Your task to perform on an android device: What is the recent news? Image 0: 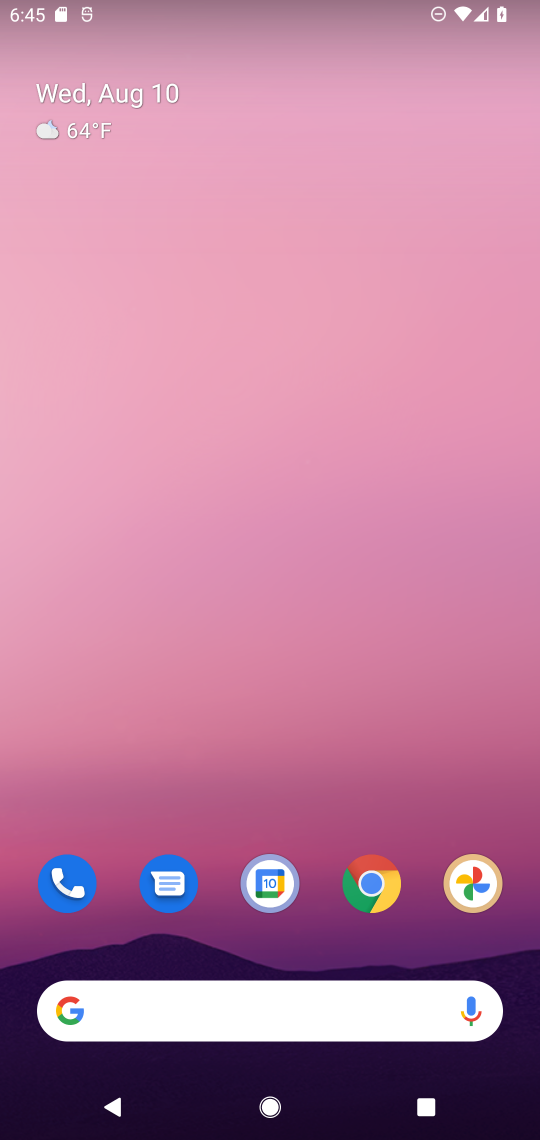
Step 0: click (386, 866)
Your task to perform on an android device: What is the recent news? Image 1: 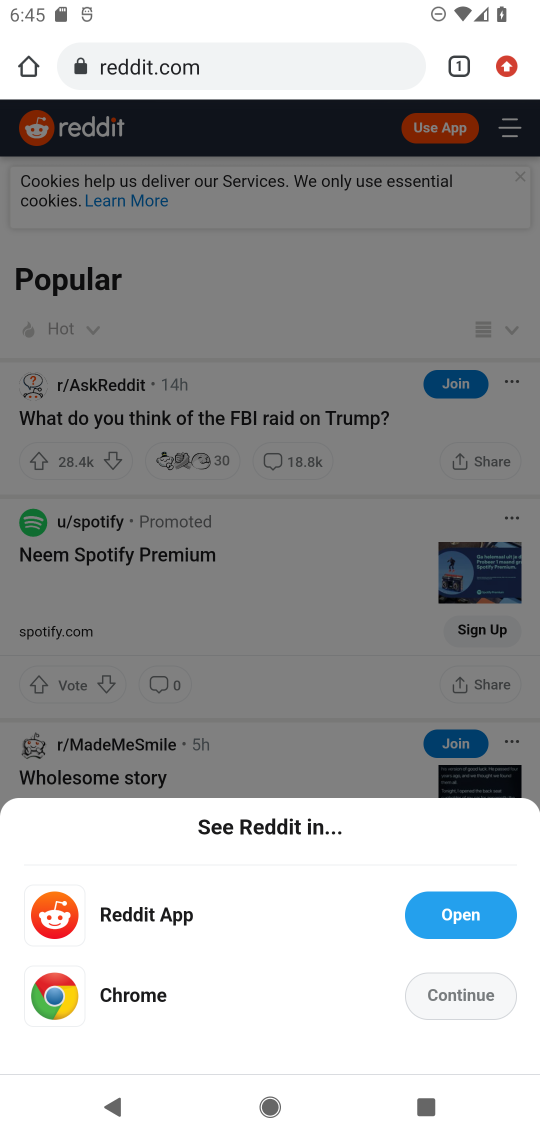
Step 1: click (253, 55)
Your task to perform on an android device: What is the recent news? Image 2: 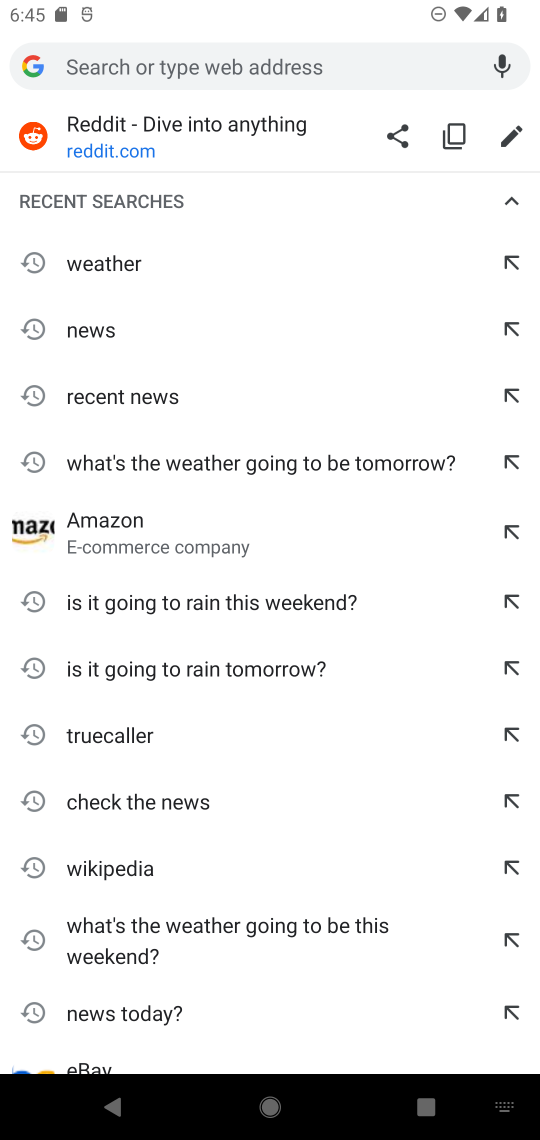
Step 2: type "What is the recent news?"
Your task to perform on an android device: What is the recent news? Image 3: 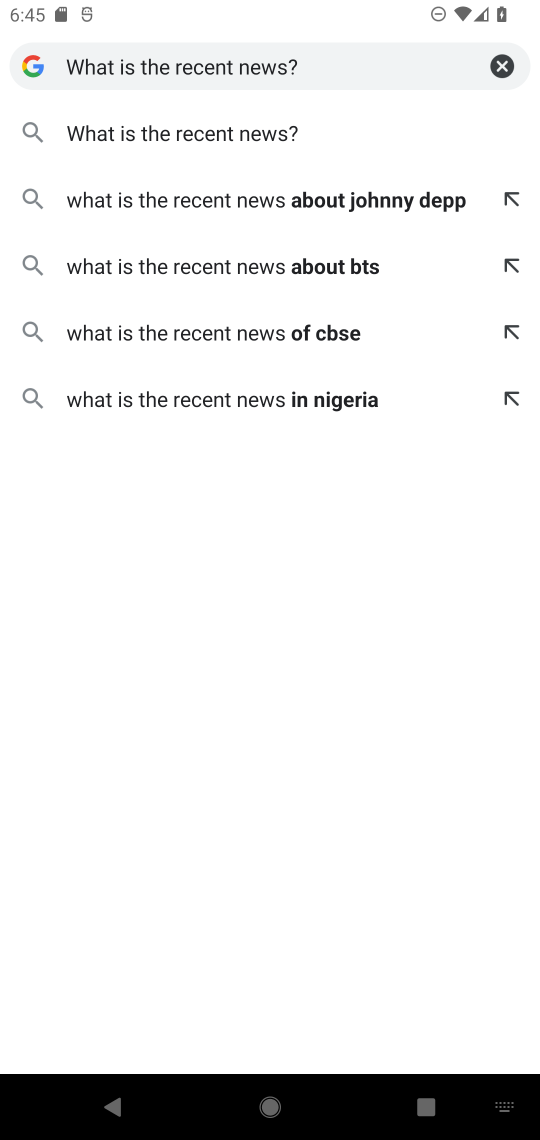
Step 3: click (257, 58)
Your task to perform on an android device: What is the recent news? Image 4: 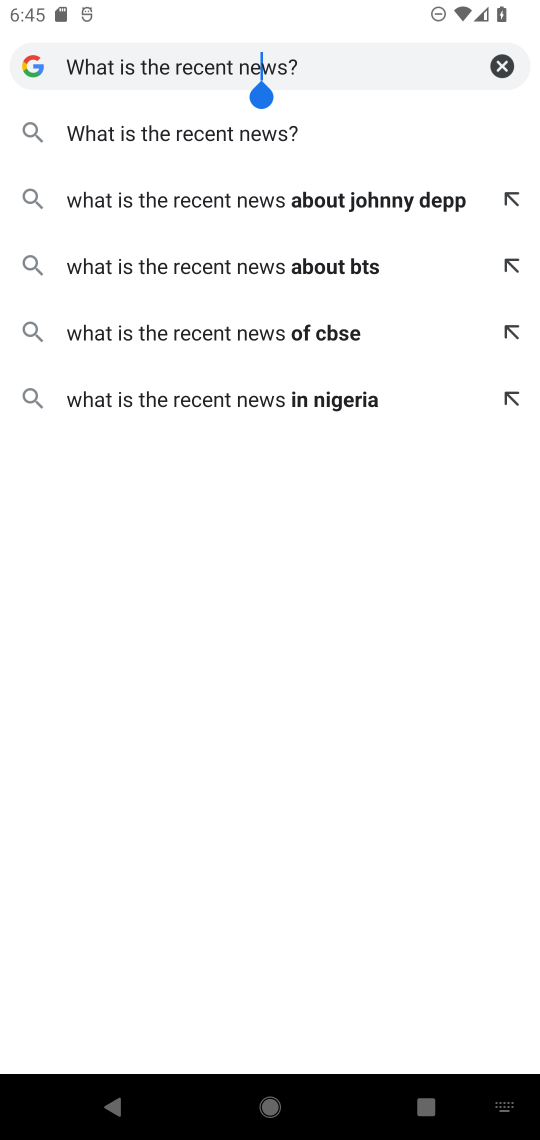
Step 4: click (241, 141)
Your task to perform on an android device: What is the recent news? Image 5: 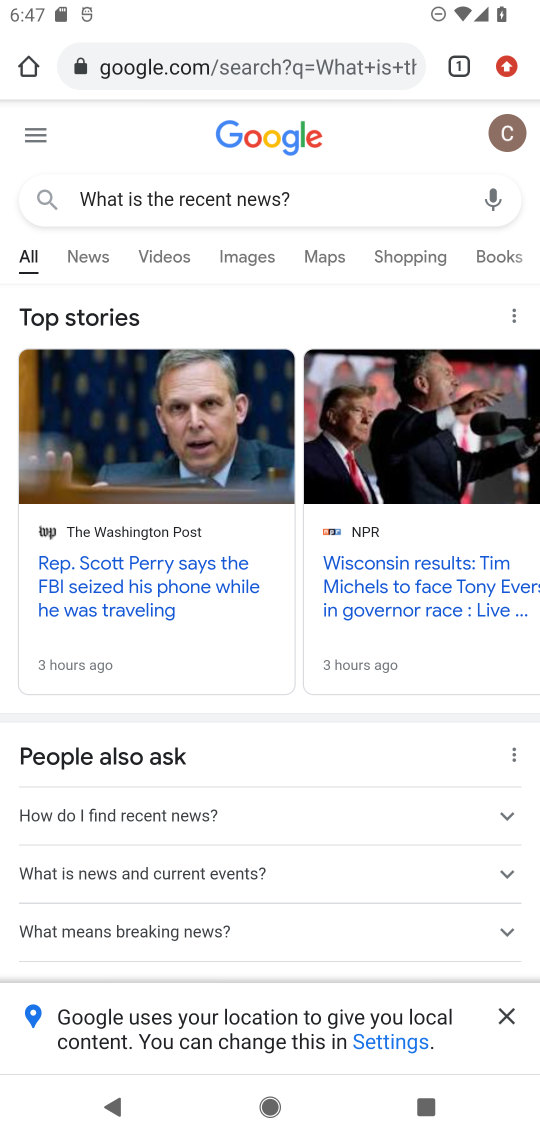
Step 5: click (85, 251)
Your task to perform on an android device: What is the recent news? Image 6: 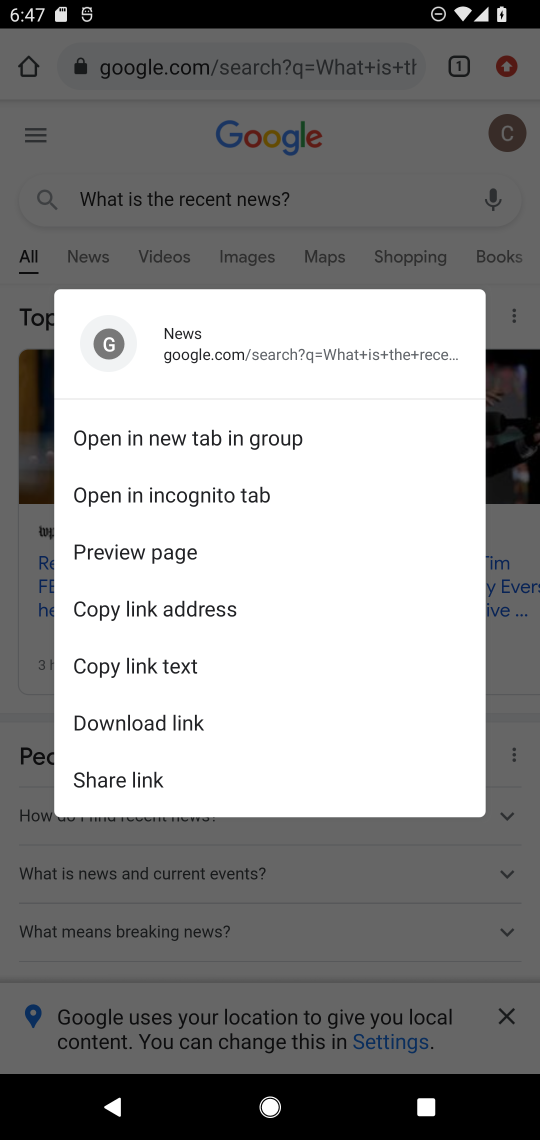
Step 6: click (320, 816)
Your task to perform on an android device: What is the recent news? Image 7: 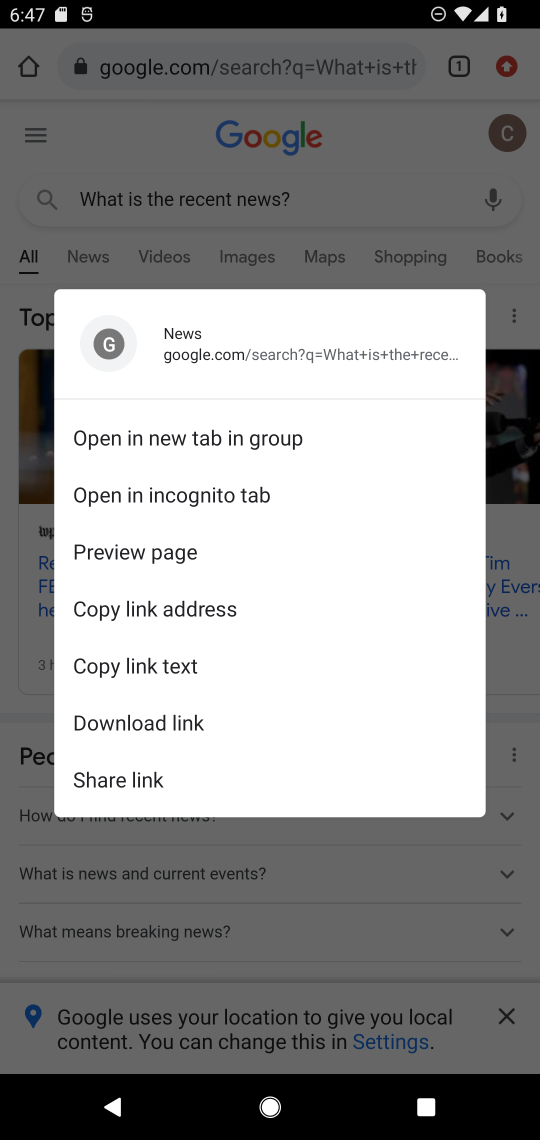
Step 7: click (14, 524)
Your task to perform on an android device: What is the recent news? Image 8: 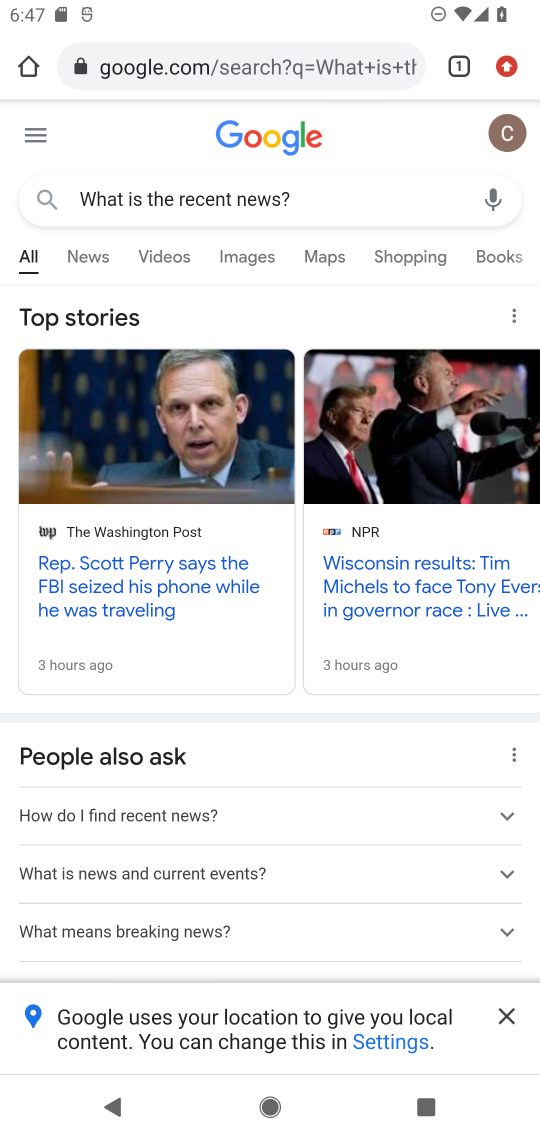
Step 8: click (91, 260)
Your task to perform on an android device: What is the recent news? Image 9: 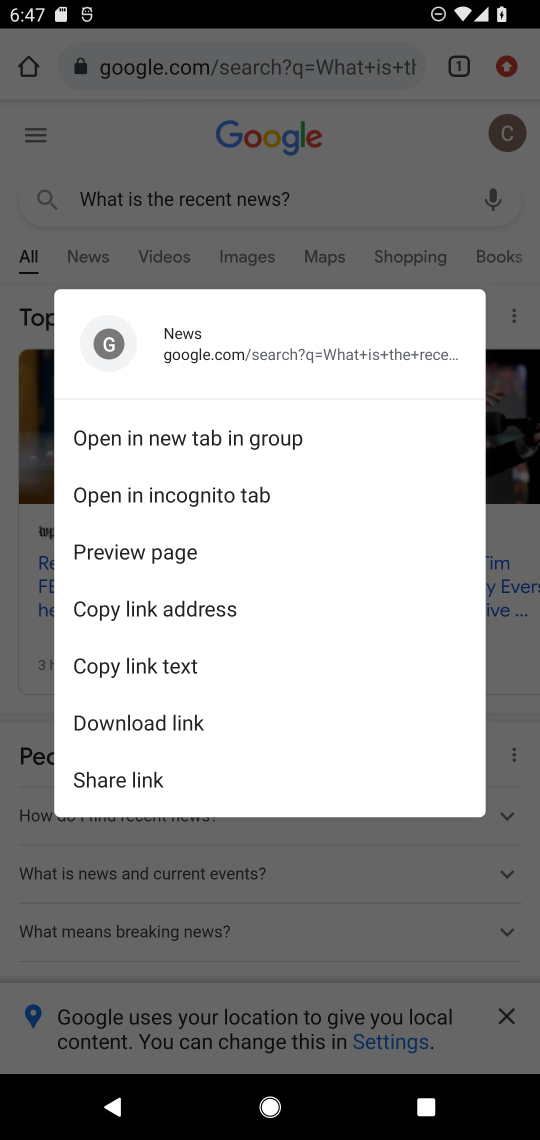
Step 9: click (287, 343)
Your task to perform on an android device: What is the recent news? Image 10: 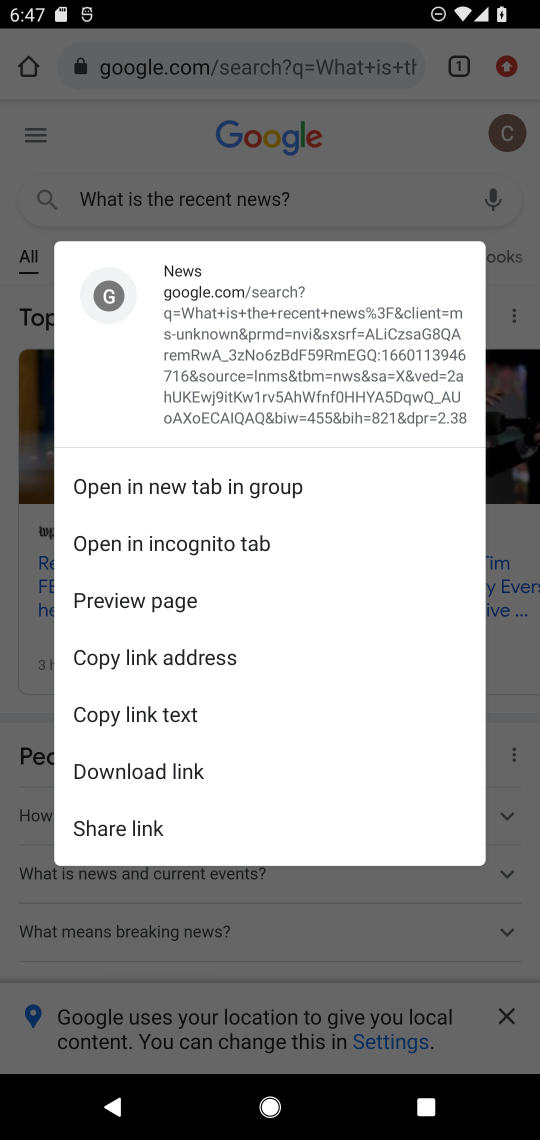
Step 10: task complete